Your task to perform on an android device: Open Android settings Image 0: 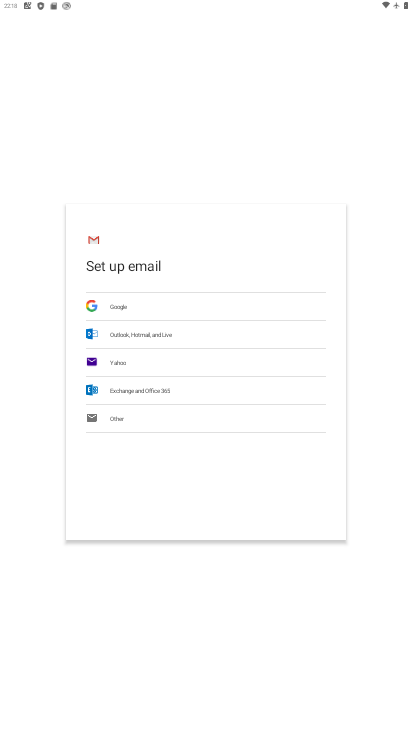
Step 0: press home button
Your task to perform on an android device: Open Android settings Image 1: 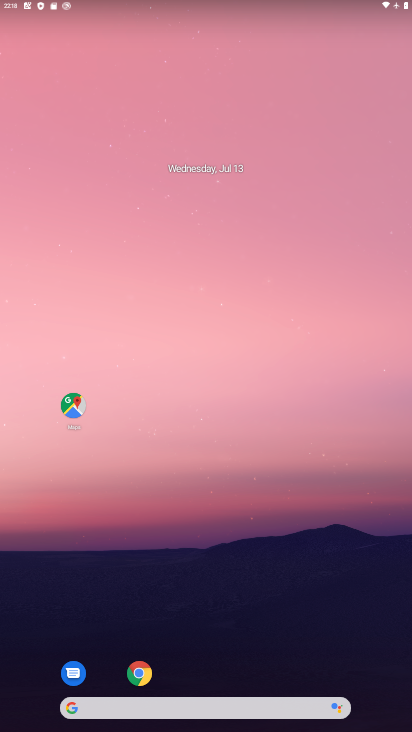
Step 1: drag from (197, 672) to (252, 83)
Your task to perform on an android device: Open Android settings Image 2: 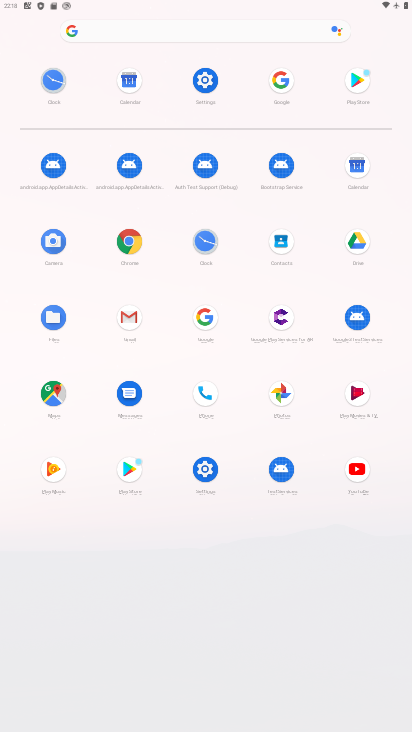
Step 2: click (196, 97)
Your task to perform on an android device: Open Android settings Image 3: 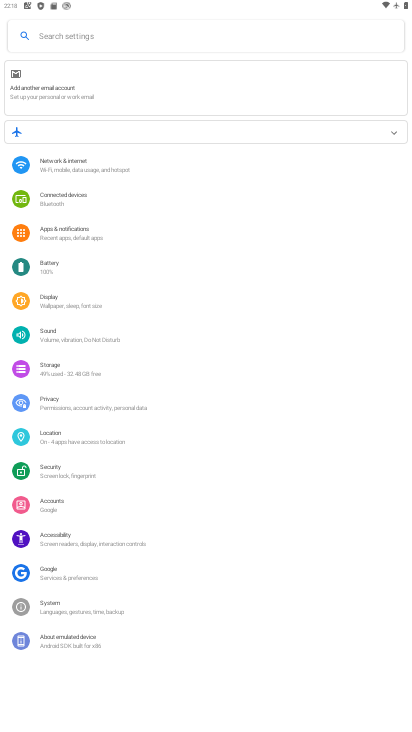
Step 3: task complete